Your task to perform on an android device: toggle sleep mode Image 0: 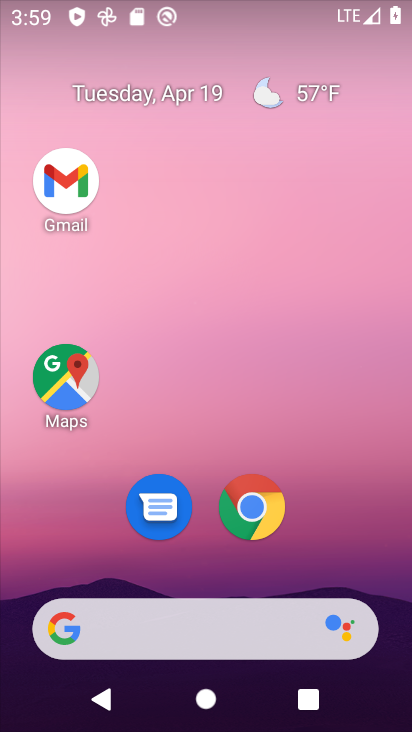
Step 0: drag from (305, 568) to (343, 177)
Your task to perform on an android device: toggle sleep mode Image 1: 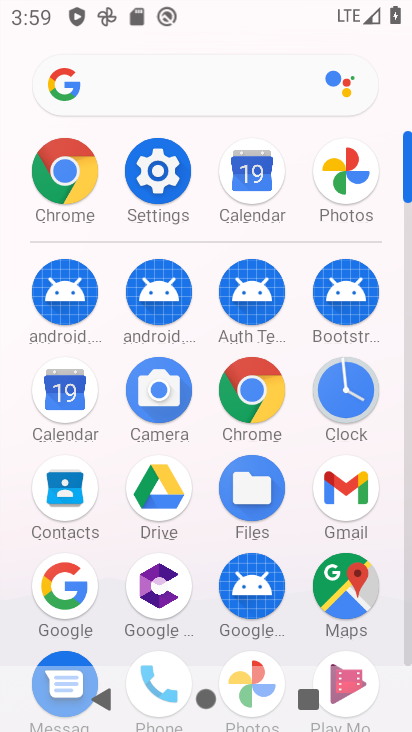
Step 1: click (171, 182)
Your task to perform on an android device: toggle sleep mode Image 2: 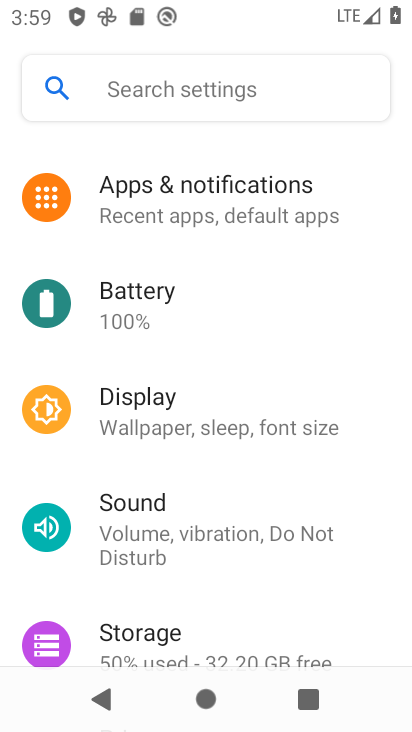
Step 2: click (216, 403)
Your task to perform on an android device: toggle sleep mode Image 3: 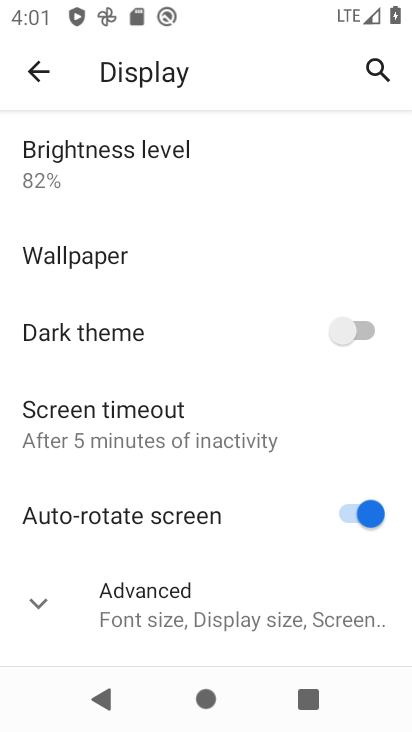
Step 3: click (237, 413)
Your task to perform on an android device: toggle sleep mode Image 4: 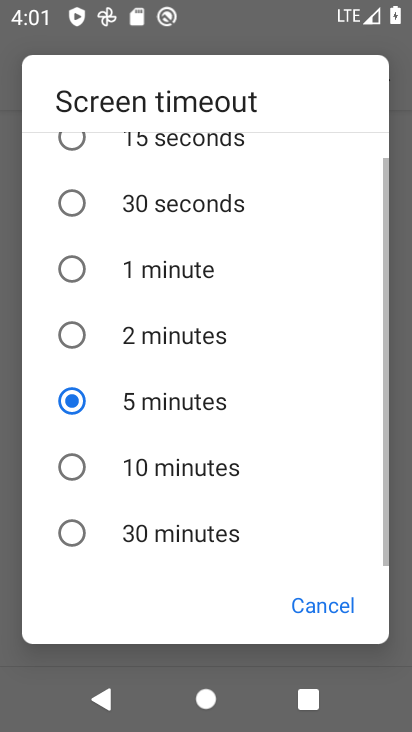
Step 4: click (106, 198)
Your task to perform on an android device: toggle sleep mode Image 5: 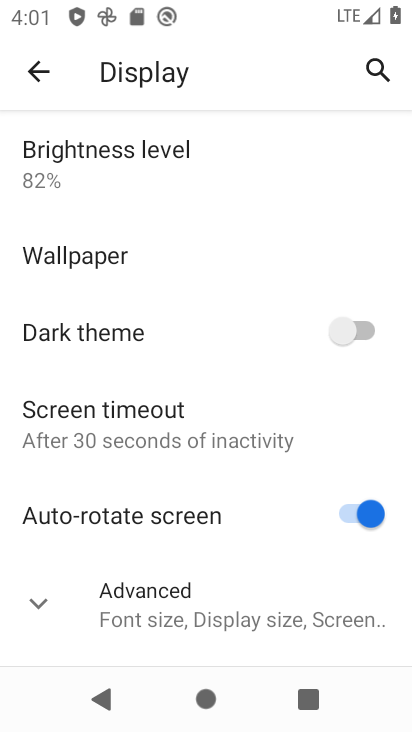
Step 5: task complete